Your task to perform on an android device: Open battery settings Image 0: 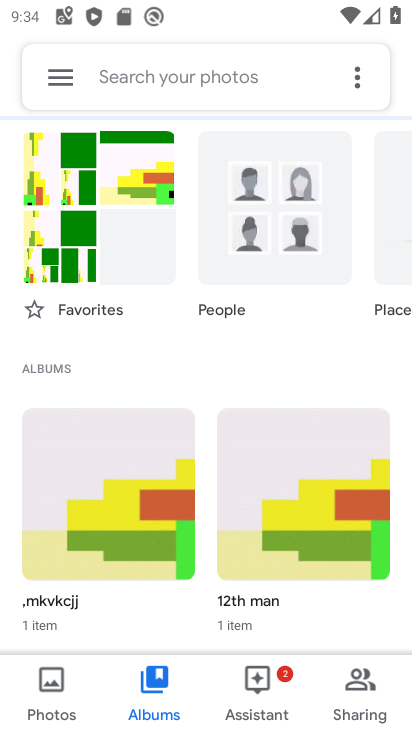
Step 0: press home button
Your task to perform on an android device: Open battery settings Image 1: 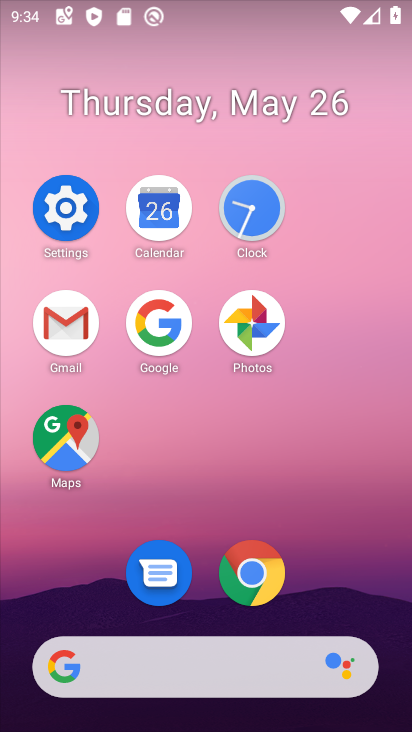
Step 1: click (58, 207)
Your task to perform on an android device: Open battery settings Image 2: 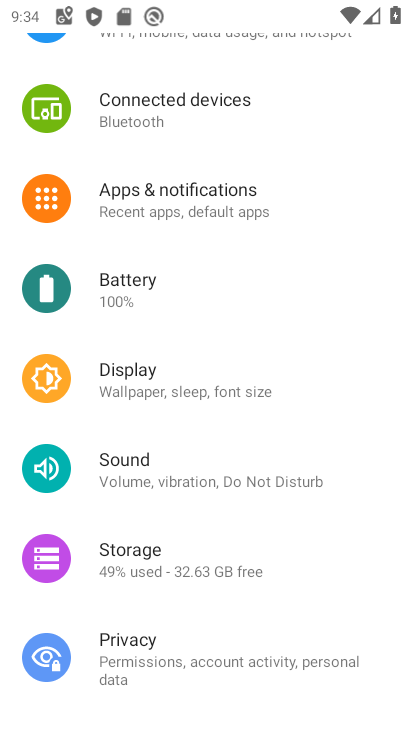
Step 2: click (195, 306)
Your task to perform on an android device: Open battery settings Image 3: 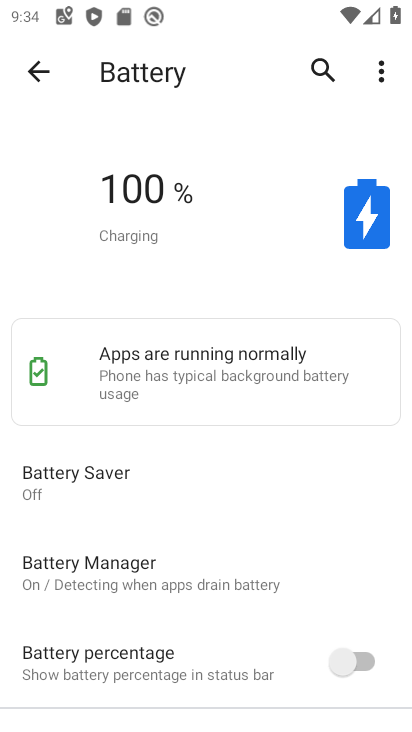
Step 3: task complete